Your task to perform on an android device: open sync settings in chrome Image 0: 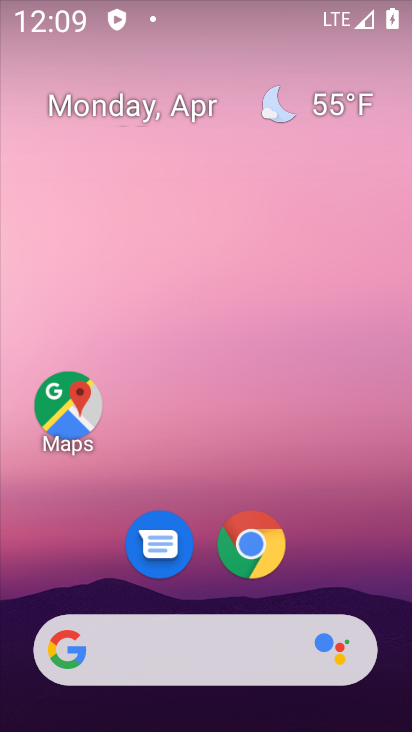
Step 0: drag from (280, 470) to (84, 76)
Your task to perform on an android device: open sync settings in chrome Image 1: 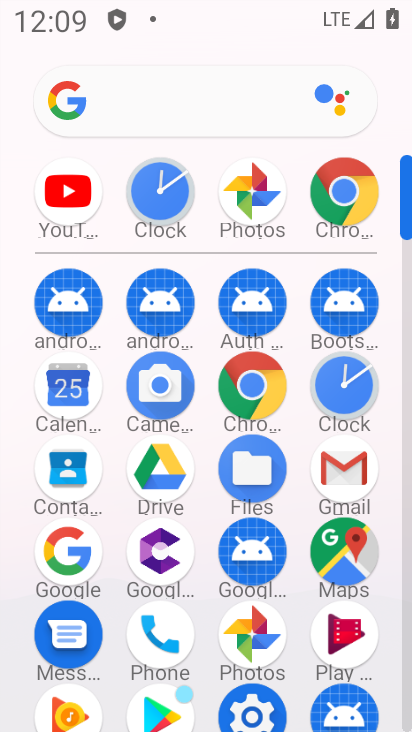
Step 1: click (350, 188)
Your task to perform on an android device: open sync settings in chrome Image 2: 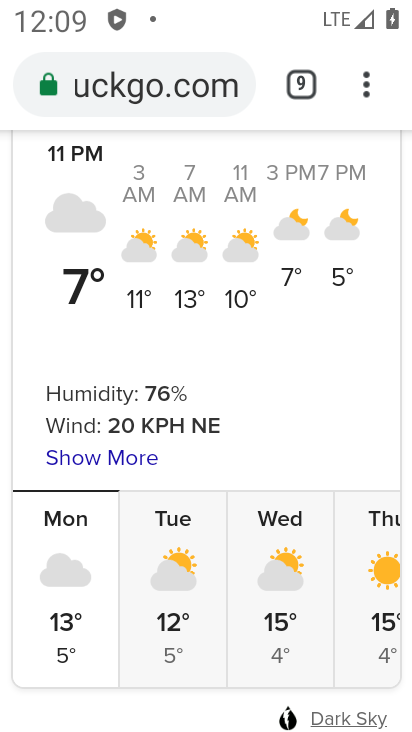
Step 2: drag from (367, 86) to (117, 593)
Your task to perform on an android device: open sync settings in chrome Image 3: 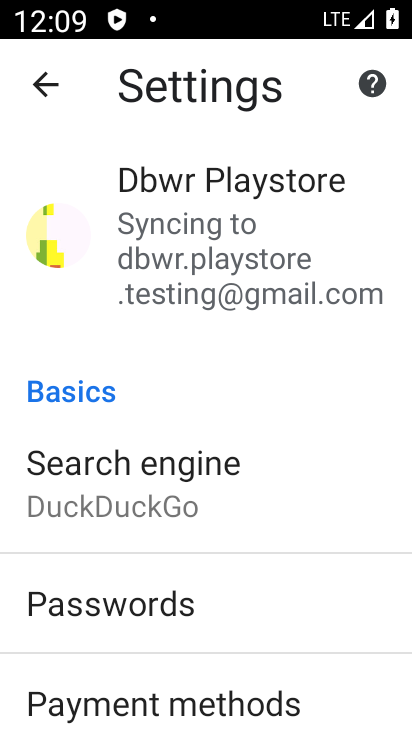
Step 3: drag from (220, 669) to (178, 196)
Your task to perform on an android device: open sync settings in chrome Image 4: 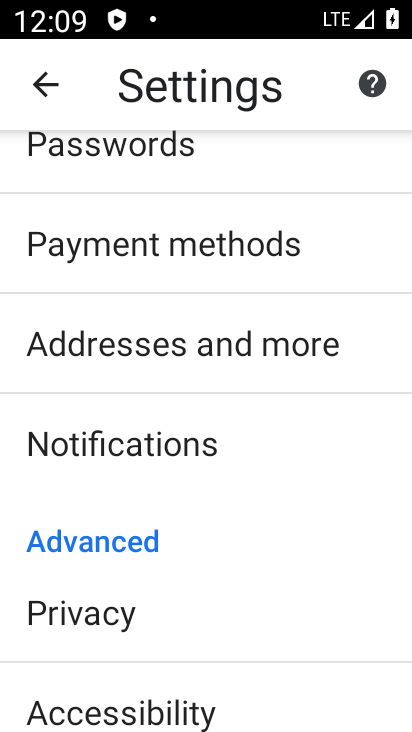
Step 4: drag from (154, 615) to (175, 278)
Your task to perform on an android device: open sync settings in chrome Image 5: 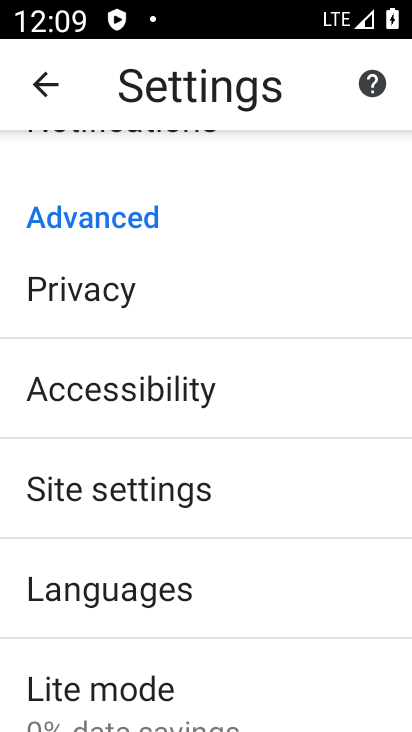
Step 5: click (109, 497)
Your task to perform on an android device: open sync settings in chrome Image 6: 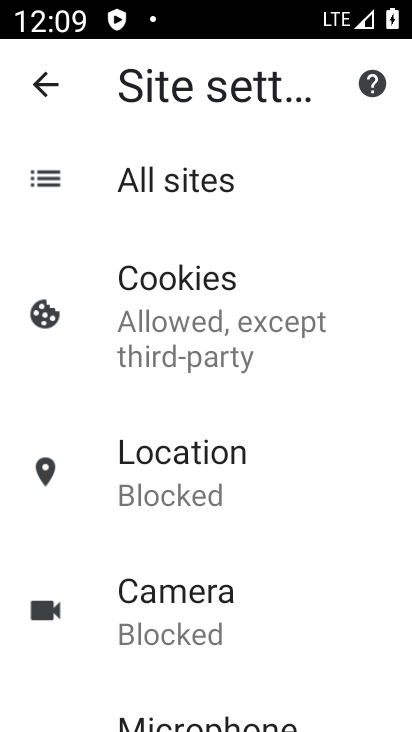
Step 6: drag from (184, 673) to (189, 220)
Your task to perform on an android device: open sync settings in chrome Image 7: 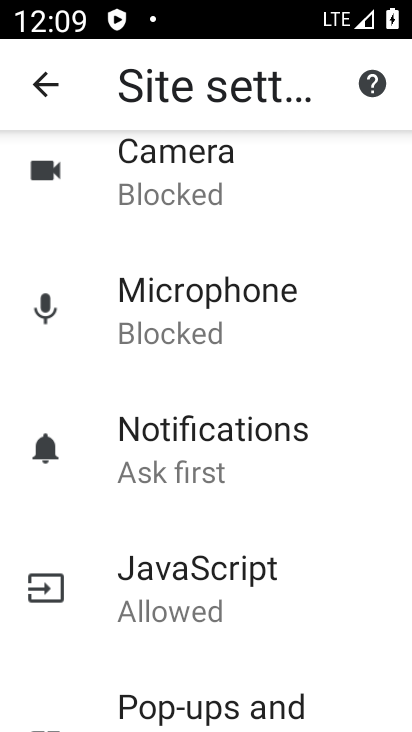
Step 7: drag from (195, 665) to (168, 253)
Your task to perform on an android device: open sync settings in chrome Image 8: 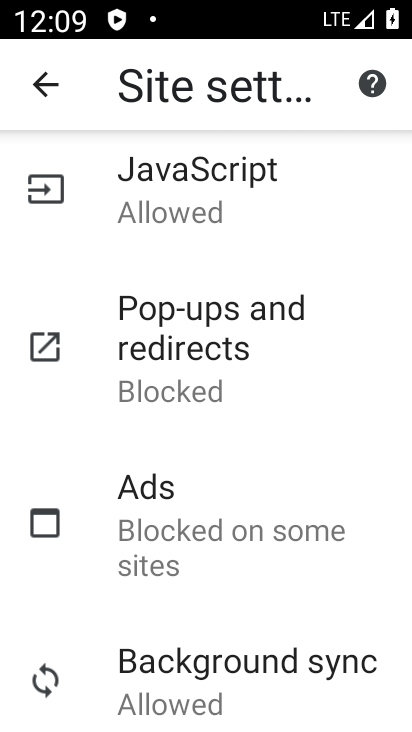
Step 8: click (177, 694)
Your task to perform on an android device: open sync settings in chrome Image 9: 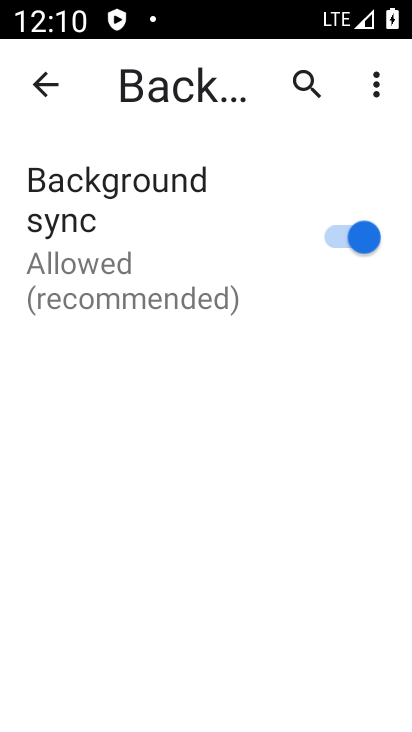
Step 9: task complete